Your task to perform on an android device: install app "Airtel Thanks" Image 0: 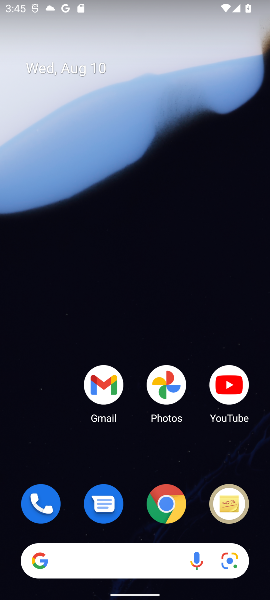
Step 0: drag from (195, 475) to (189, 142)
Your task to perform on an android device: install app "Airtel Thanks" Image 1: 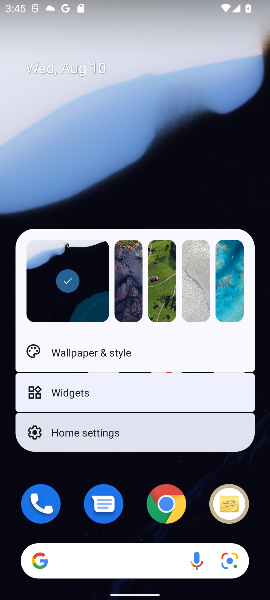
Step 1: press home button
Your task to perform on an android device: install app "Airtel Thanks" Image 2: 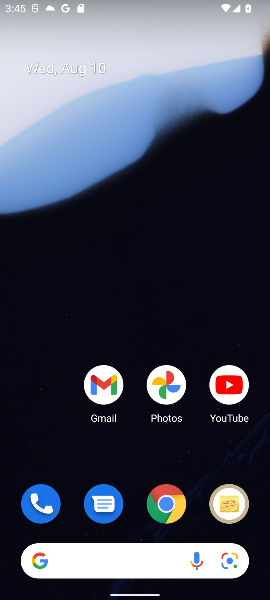
Step 2: drag from (133, 534) to (123, 15)
Your task to perform on an android device: install app "Airtel Thanks" Image 3: 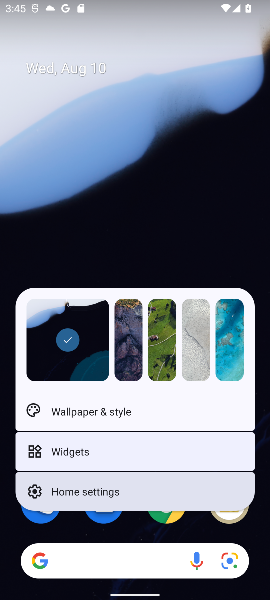
Step 3: drag from (258, 555) to (206, 186)
Your task to perform on an android device: install app "Airtel Thanks" Image 4: 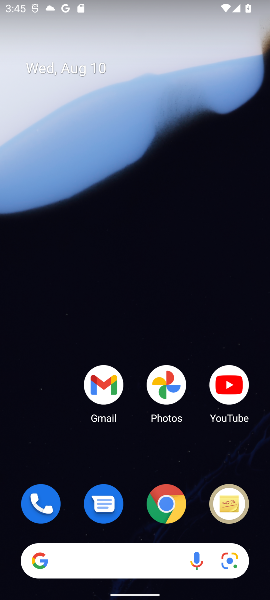
Step 4: drag from (133, 476) to (111, 125)
Your task to perform on an android device: install app "Airtel Thanks" Image 5: 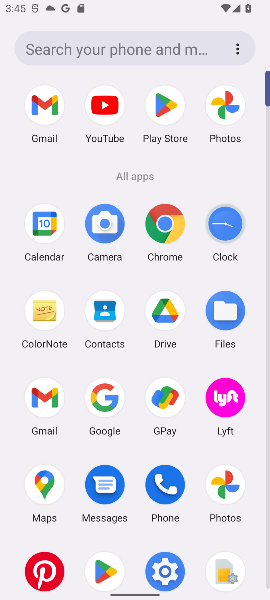
Step 5: click (116, 565)
Your task to perform on an android device: install app "Airtel Thanks" Image 6: 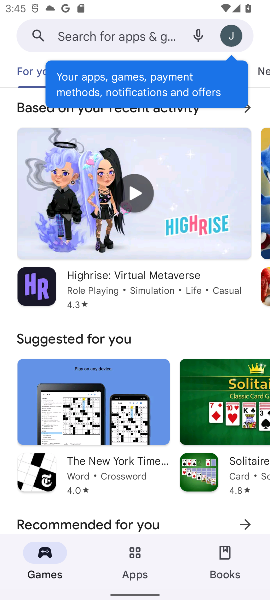
Step 6: click (136, 28)
Your task to perform on an android device: install app "Airtel Thanks" Image 7: 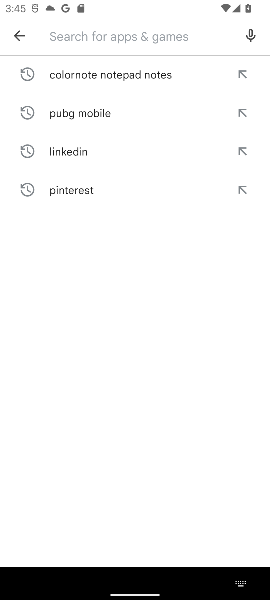
Step 7: type "Airtel Thanks"
Your task to perform on an android device: install app "Airtel Thanks" Image 8: 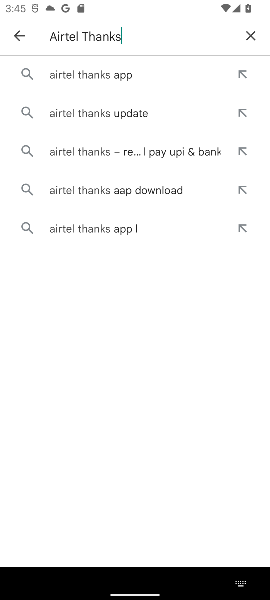
Step 8: click (84, 84)
Your task to perform on an android device: install app "Airtel Thanks" Image 9: 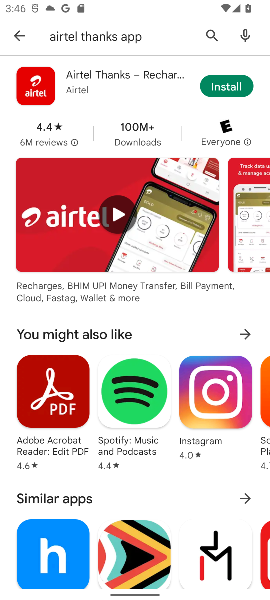
Step 9: click (222, 88)
Your task to perform on an android device: install app "Airtel Thanks" Image 10: 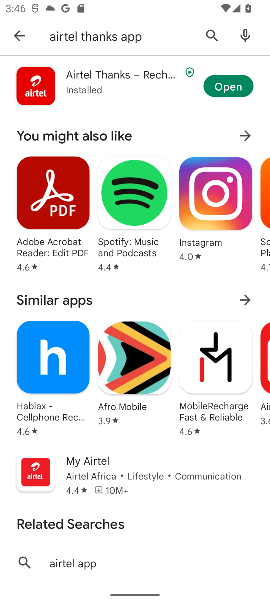
Step 10: task complete